Your task to perform on an android device: Do I have any events tomorrow? Image 0: 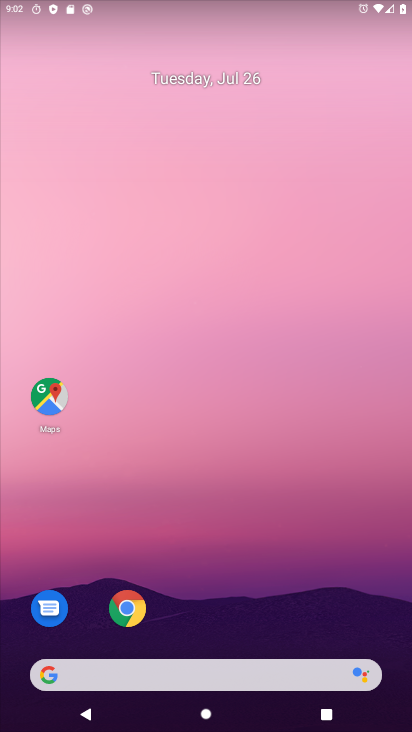
Step 0: drag from (295, 629) to (395, 16)
Your task to perform on an android device: Do I have any events tomorrow? Image 1: 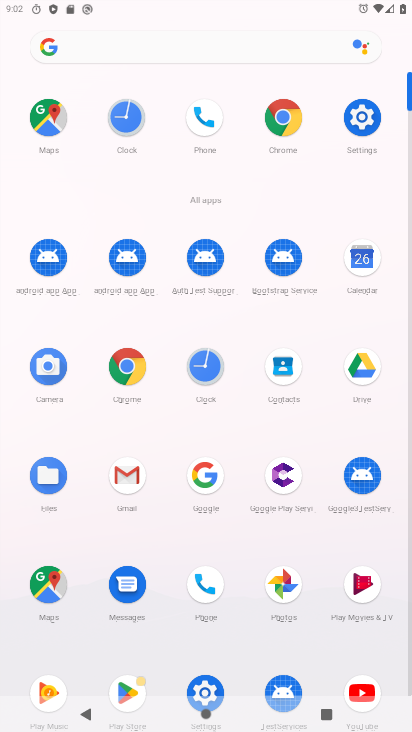
Step 1: click (361, 258)
Your task to perform on an android device: Do I have any events tomorrow? Image 2: 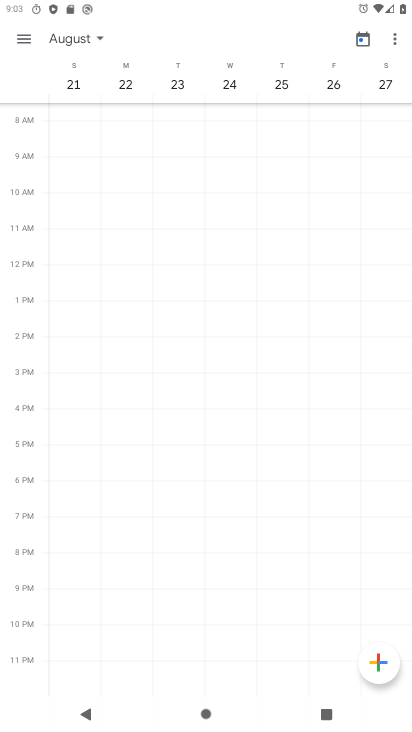
Step 2: click (30, 45)
Your task to perform on an android device: Do I have any events tomorrow? Image 3: 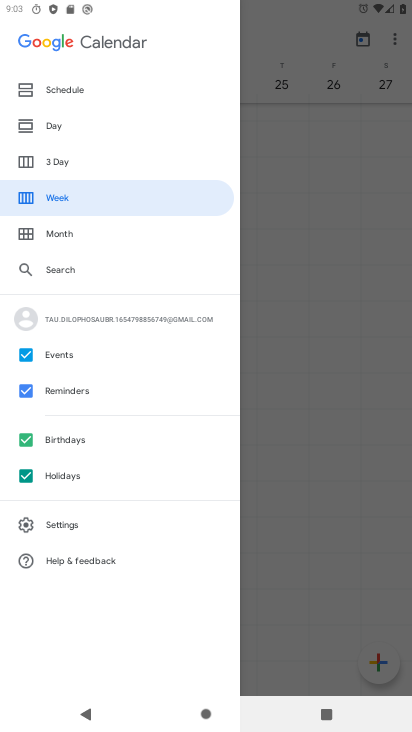
Step 3: click (60, 125)
Your task to perform on an android device: Do I have any events tomorrow? Image 4: 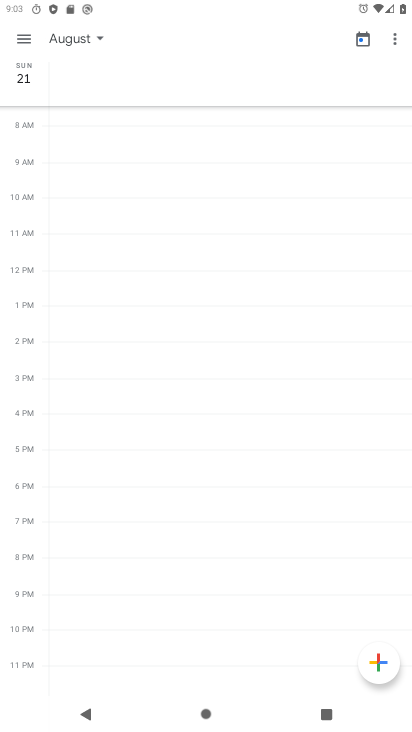
Step 4: click (95, 41)
Your task to perform on an android device: Do I have any events tomorrow? Image 5: 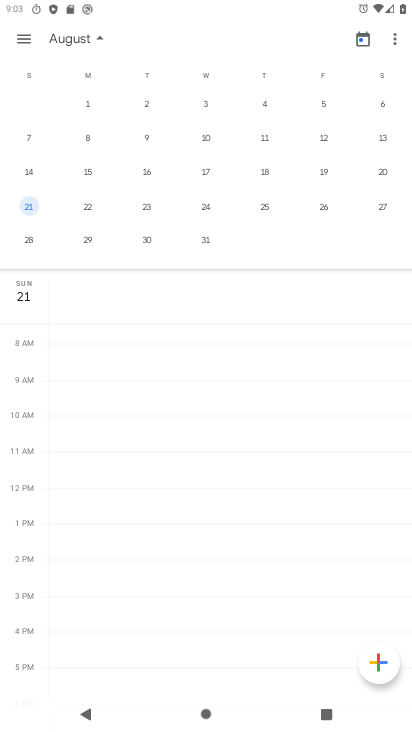
Step 5: drag from (141, 187) to (411, 267)
Your task to perform on an android device: Do I have any events tomorrow? Image 6: 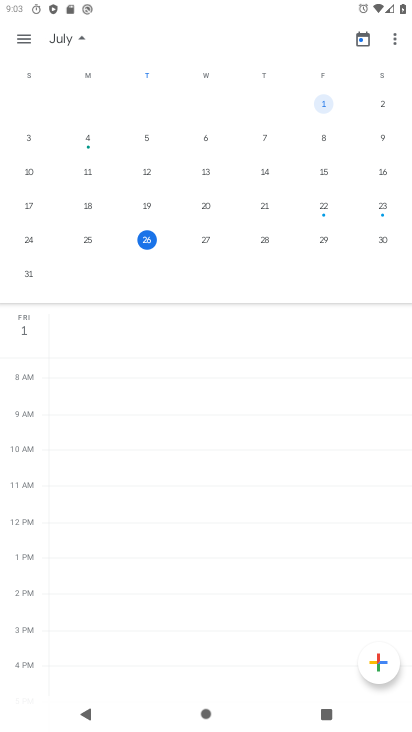
Step 6: click (204, 239)
Your task to perform on an android device: Do I have any events tomorrow? Image 7: 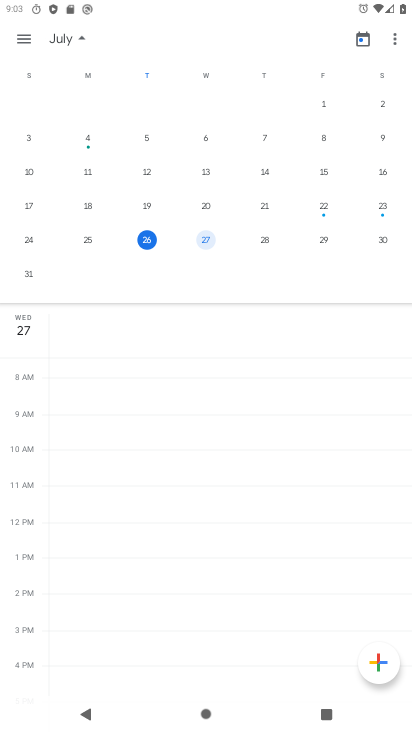
Step 7: task complete